Your task to perform on an android device: Open the phone app and click the voicemail tab. Image 0: 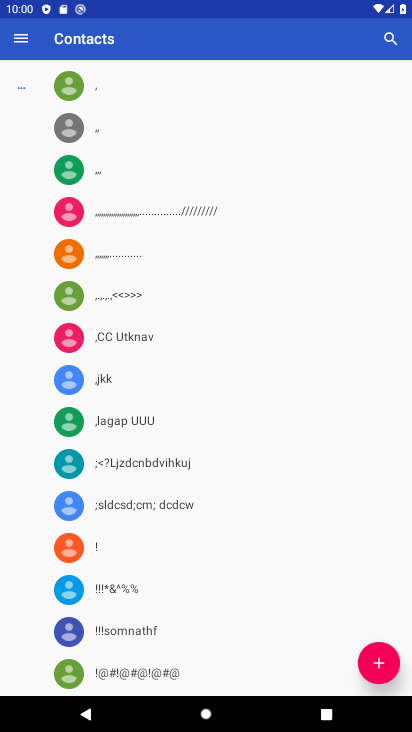
Step 0: press back button
Your task to perform on an android device: Open the phone app and click the voicemail tab. Image 1: 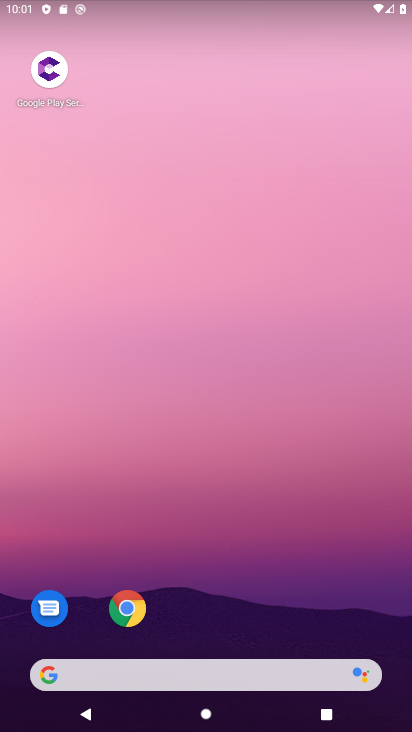
Step 1: drag from (309, 563) to (194, 2)
Your task to perform on an android device: Open the phone app and click the voicemail tab. Image 2: 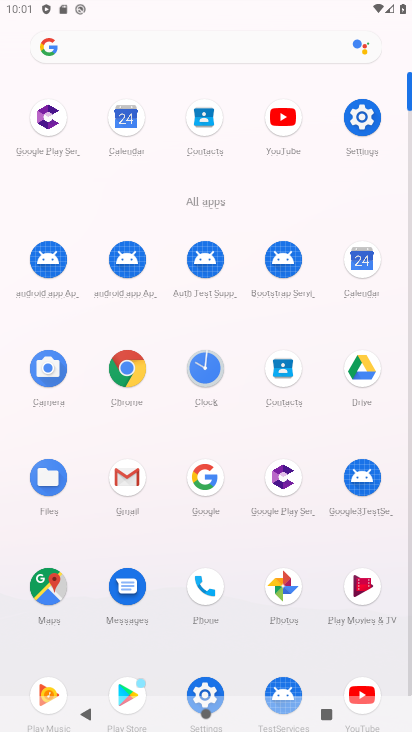
Step 2: drag from (2, 648) to (5, 409)
Your task to perform on an android device: Open the phone app and click the voicemail tab. Image 3: 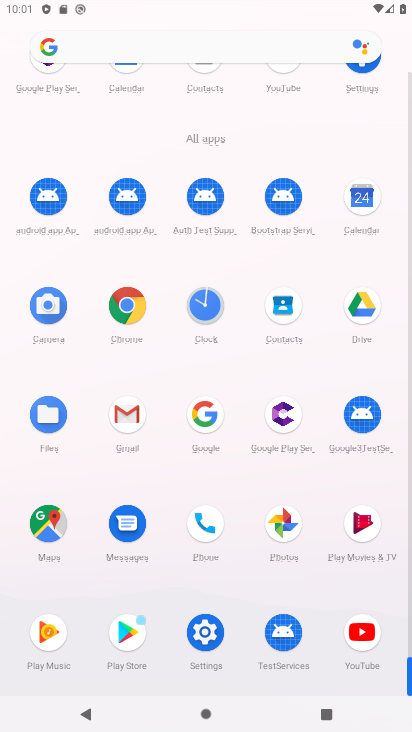
Step 3: click (196, 521)
Your task to perform on an android device: Open the phone app and click the voicemail tab. Image 4: 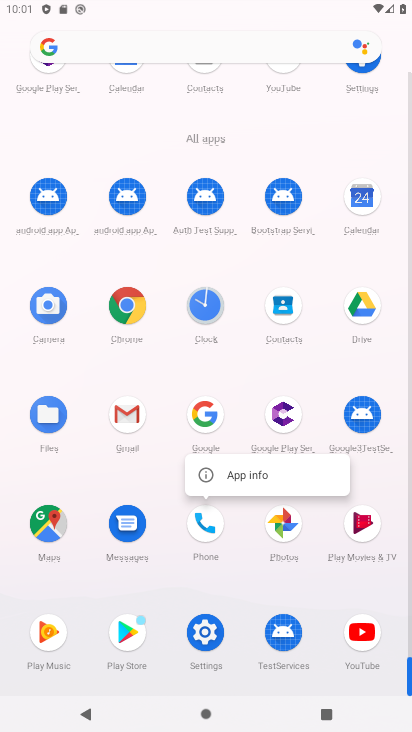
Step 4: click (204, 516)
Your task to perform on an android device: Open the phone app and click the voicemail tab. Image 5: 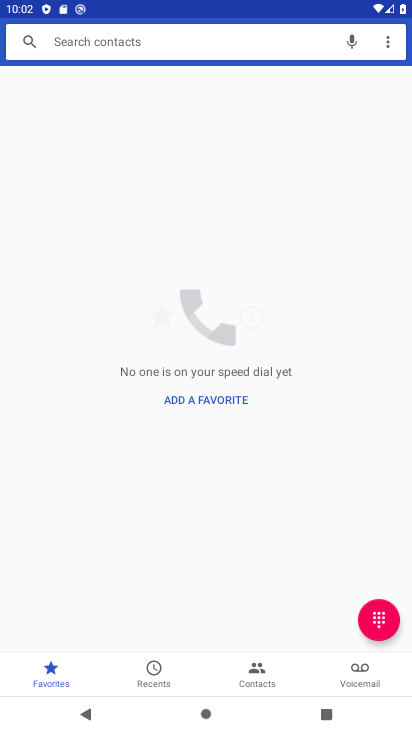
Step 5: click (359, 660)
Your task to perform on an android device: Open the phone app and click the voicemail tab. Image 6: 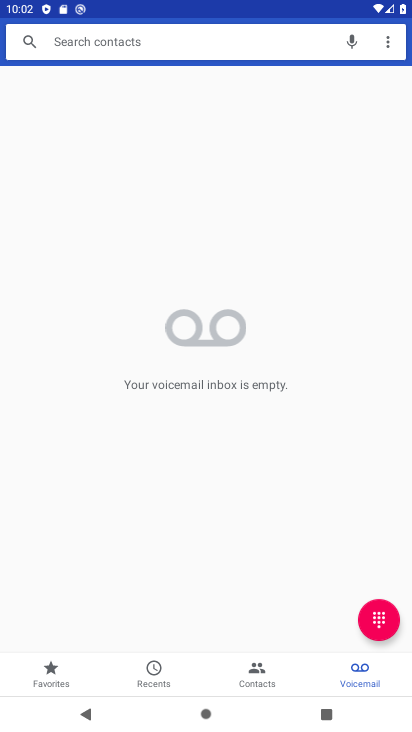
Step 6: task complete